Your task to perform on an android device: turn pop-ups on in chrome Image 0: 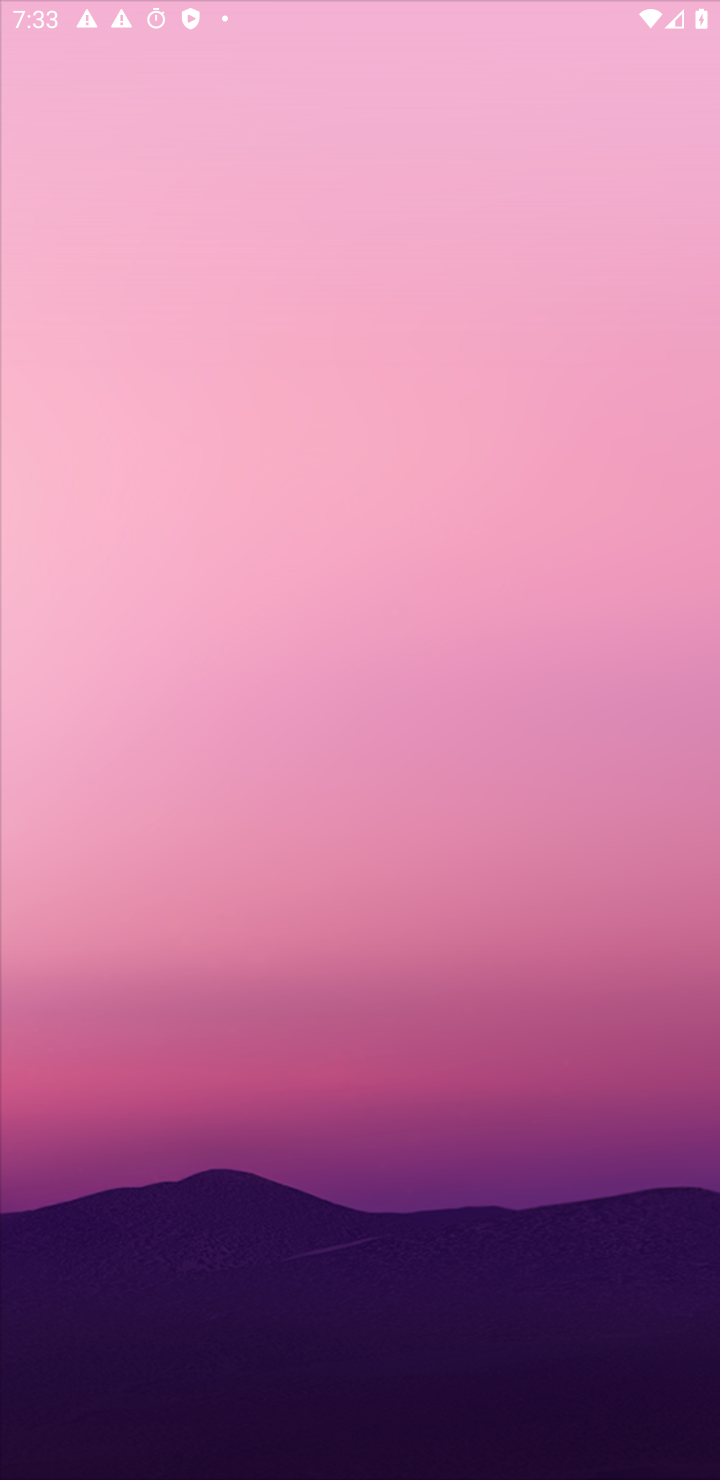
Step 0: press home button
Your task to perform on an android device: turn pop-ups on in chrome Image 1: 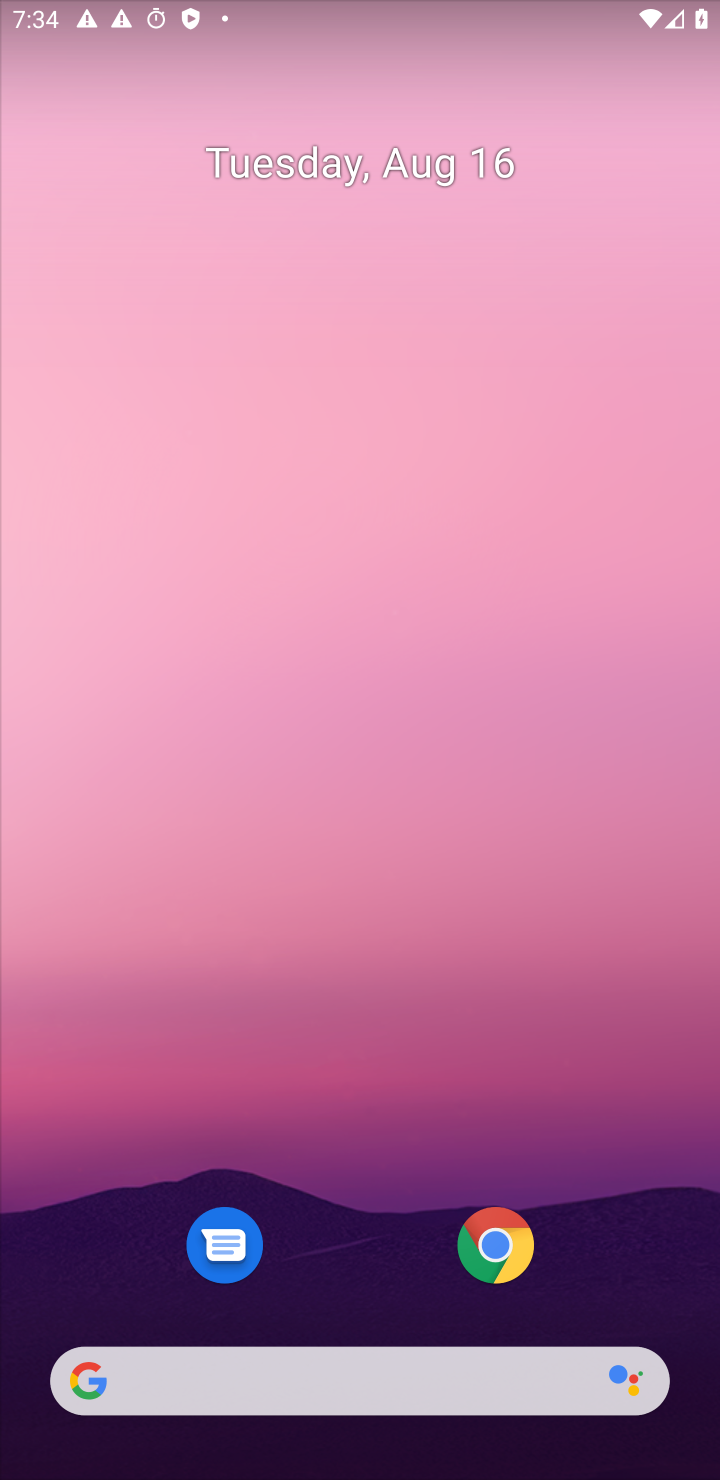
Step 1: click (485, 1238)
Your task to perform on an android device: turn pop-ups on in chrome Image 2: 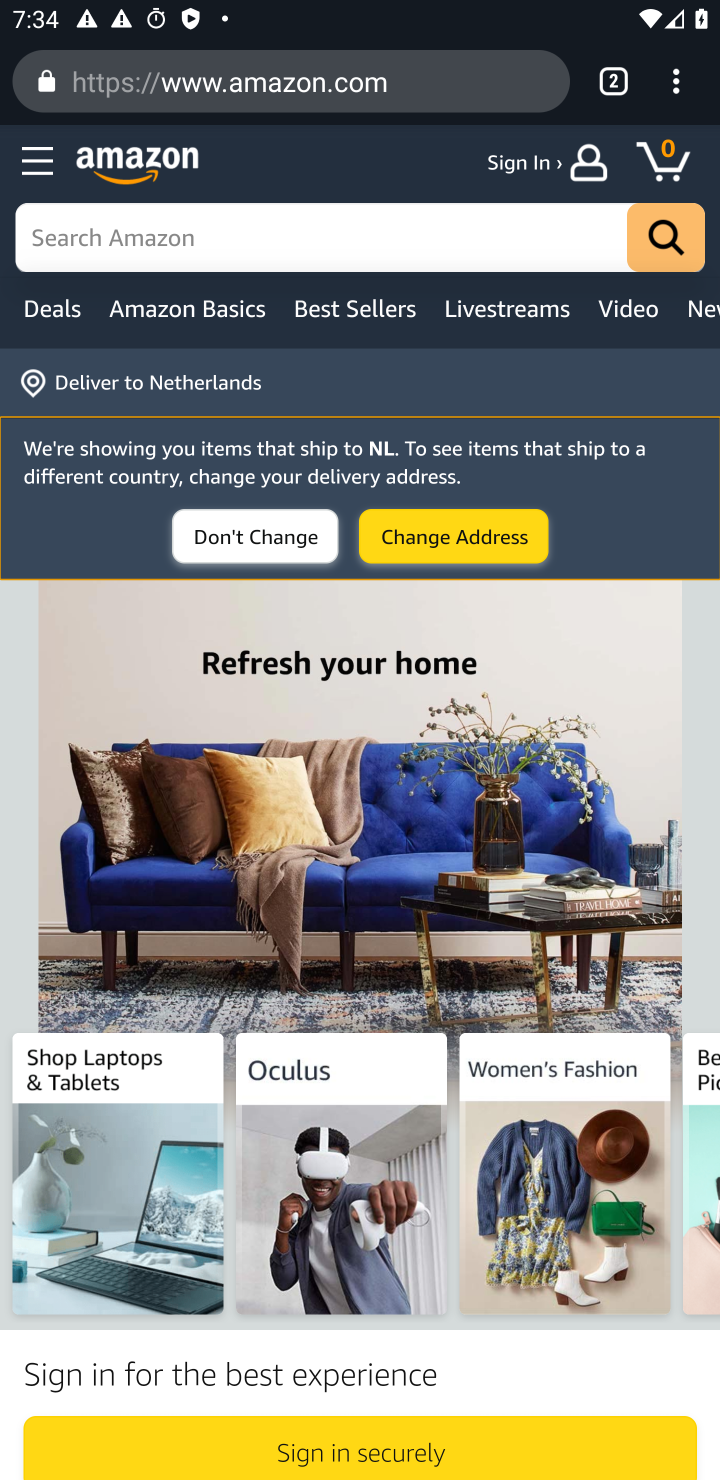
Step 2: drag from (666, 68) to (366, 992)
Your task to perform on an android device: turn pop-ups on in chrome Image 3: 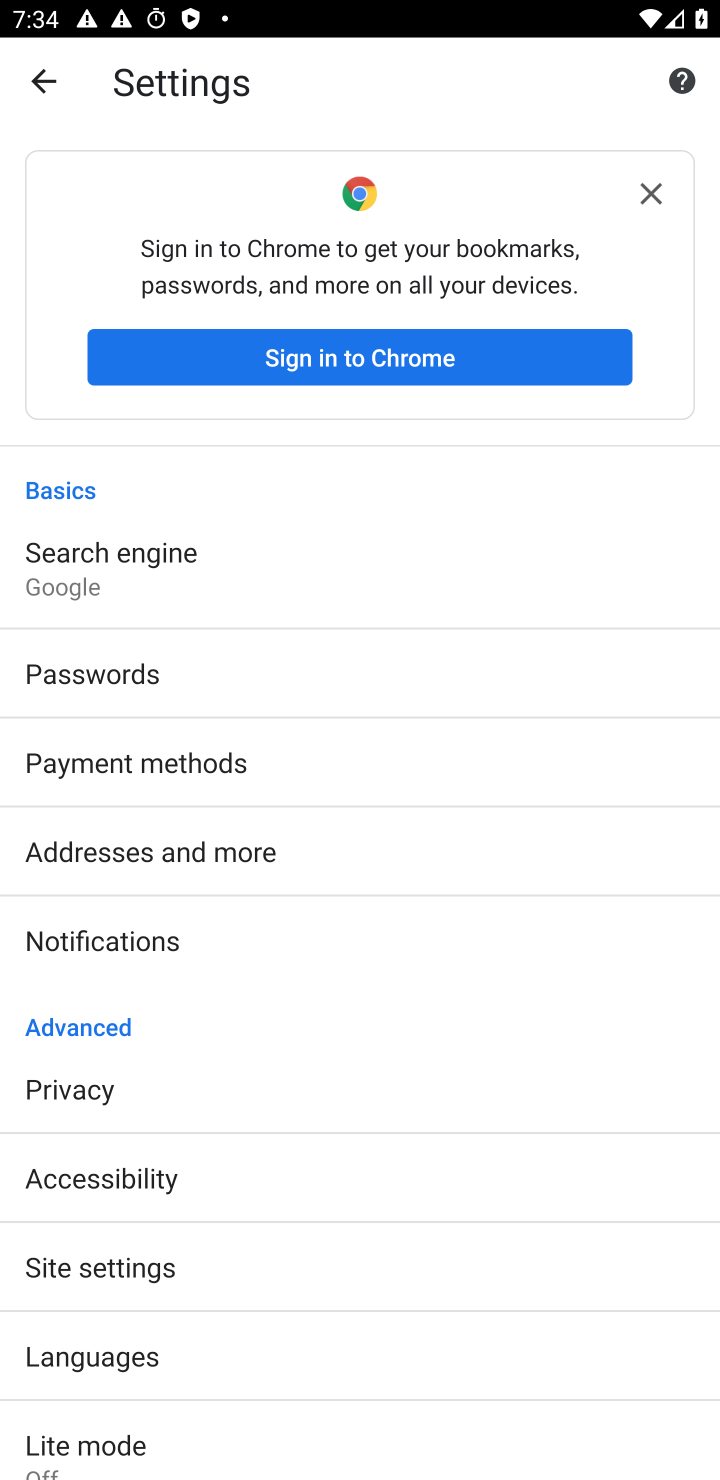
Step 3: click (151, 1263)
Your task to perform on an android device: turn pop-ups on in chrome Image 4: 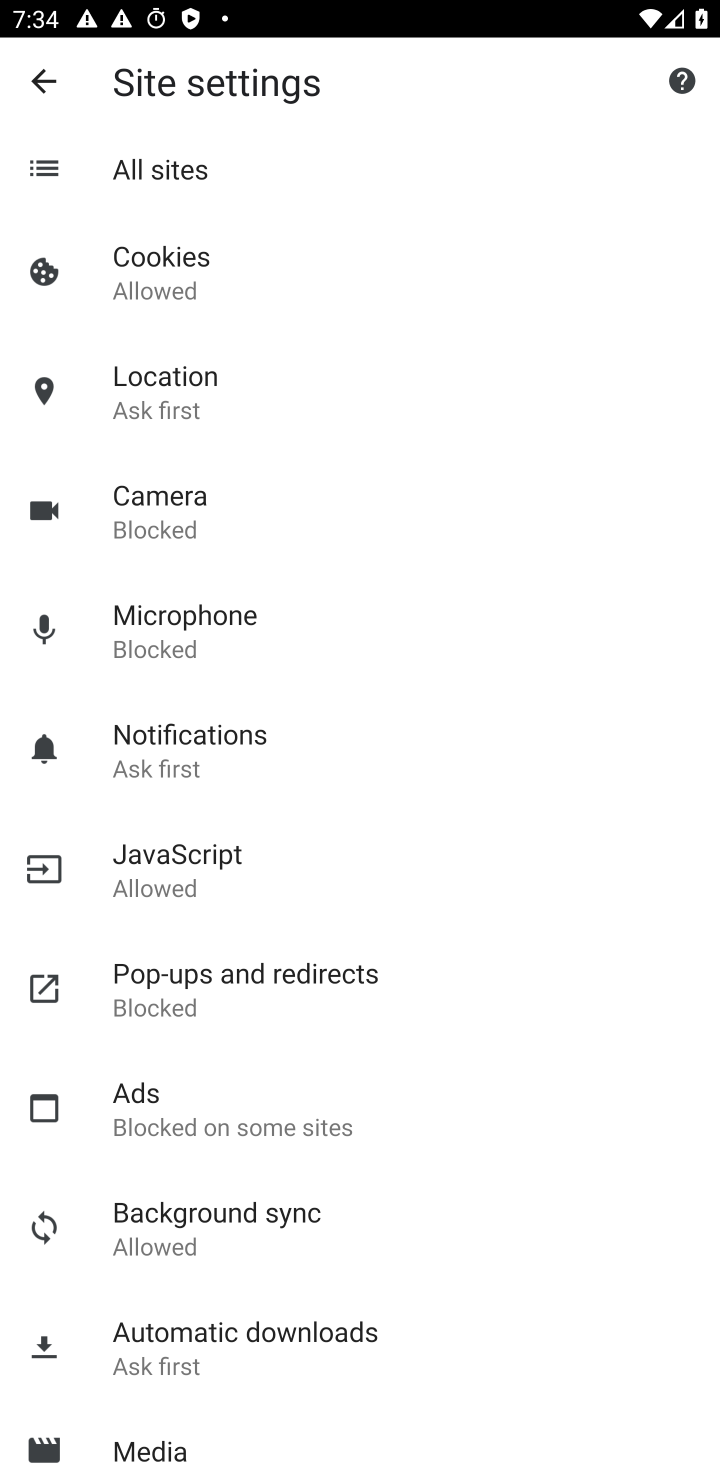
Step 4: click (182, 979)
Your task to perform on an android device: turn pop-ups on in chrome Image 5: 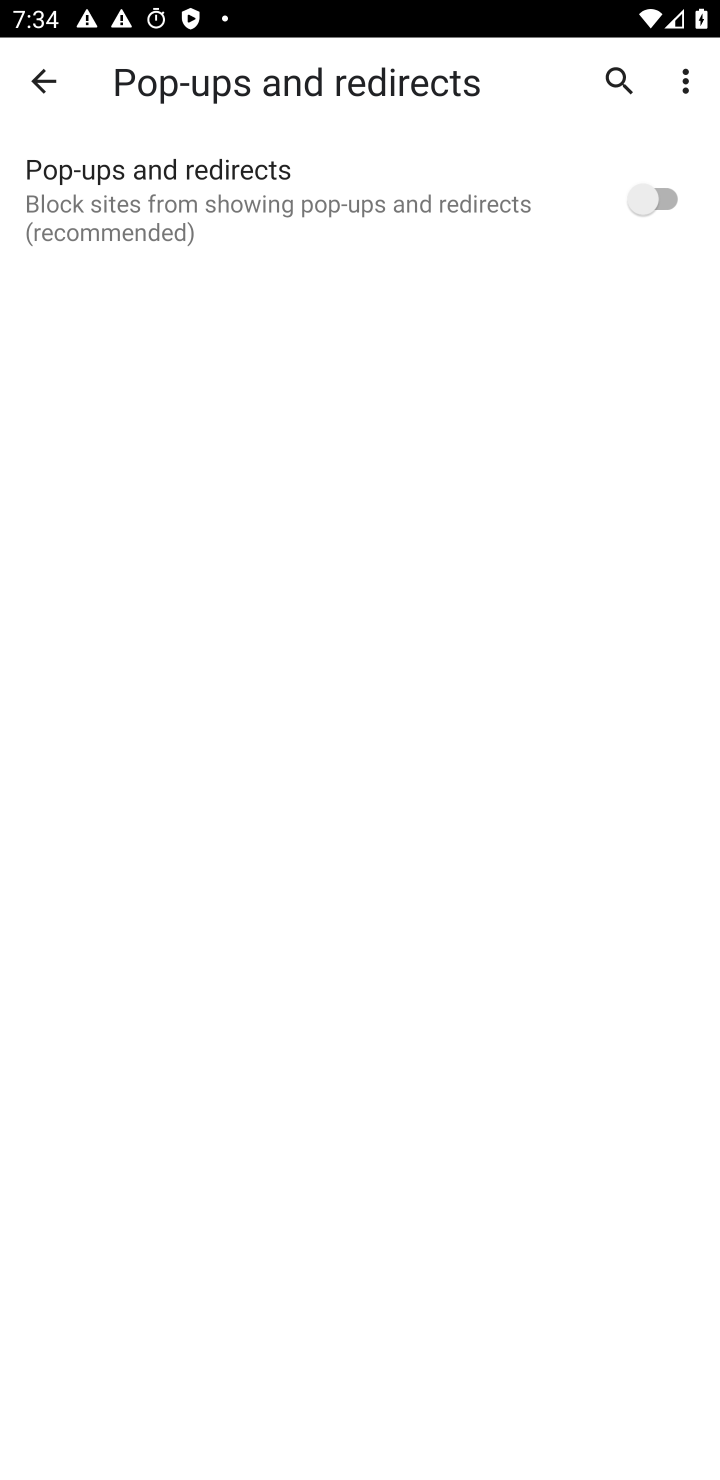
Step 5: click (666, 194)
Your task to perform on an android device: turn pop-ups on in chrome Image 6: 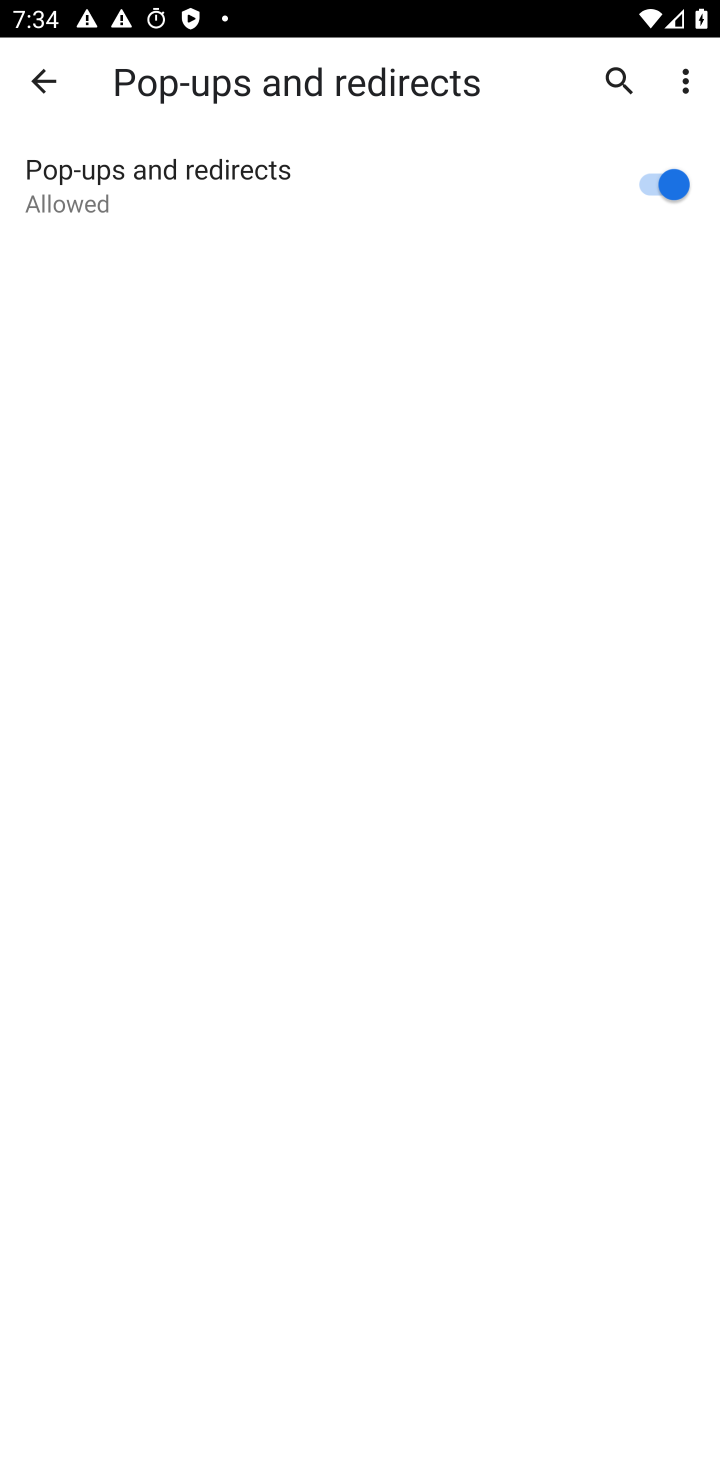
Step 6: task complete